Your task to perform on an android device: Show me the alarms in the clock app Image 0: 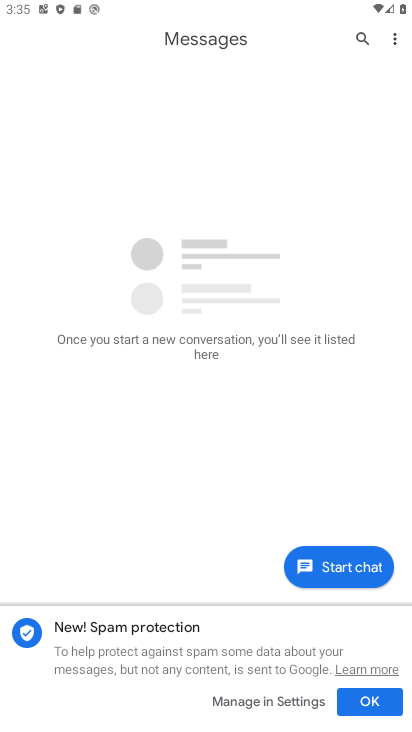
Step 0: press home button
Your task to perform on an android device: Show me the alarms in the clock app Image 1: 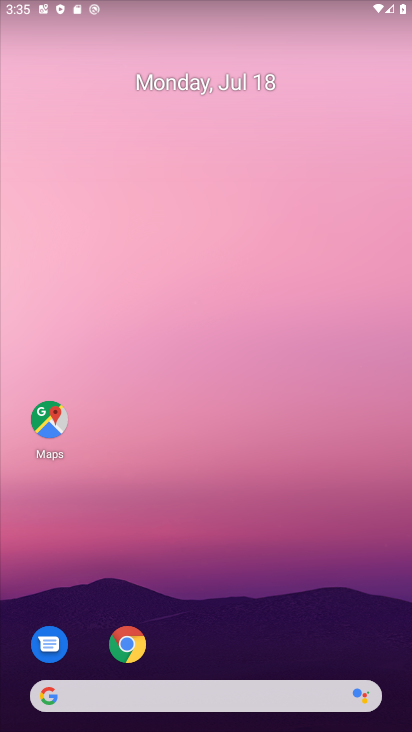
Step 1: drag from (323, 641) to (323, 137)
Your task to perform on an android device: Show me the alarms in the clock app Image 2: 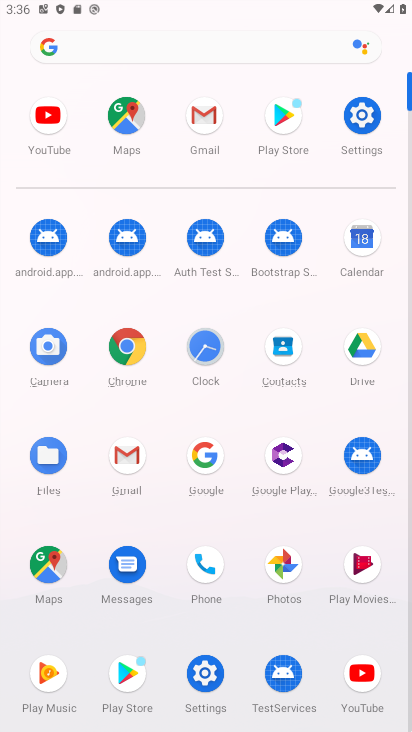
Step 2: click (203, 343)
Your task to perform on an android device: Show me the alarms in the clock app Image 3: 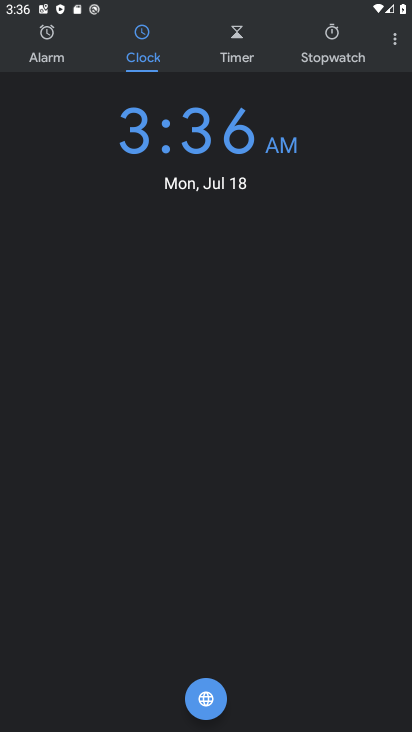
Step 3: click (52, 41)
Your task to perform on an android device: Show me the alarms in the clock app Image 4: 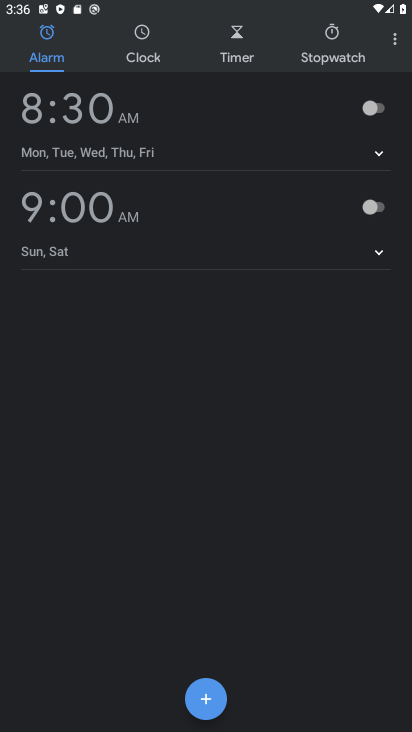
Step 4: task complete